Your task to perform on an android device: turn off notifications in google photos Image 0: 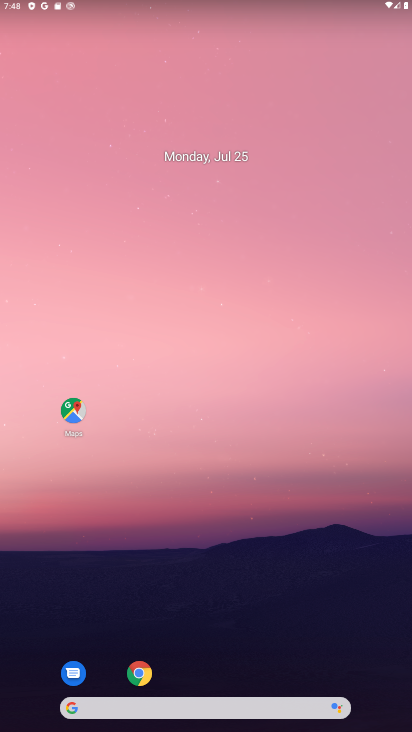
Step 0: drag from (239, 662) to (226, 90)
Your task to perform on an android device: turn off notifications in google photos Image 1: 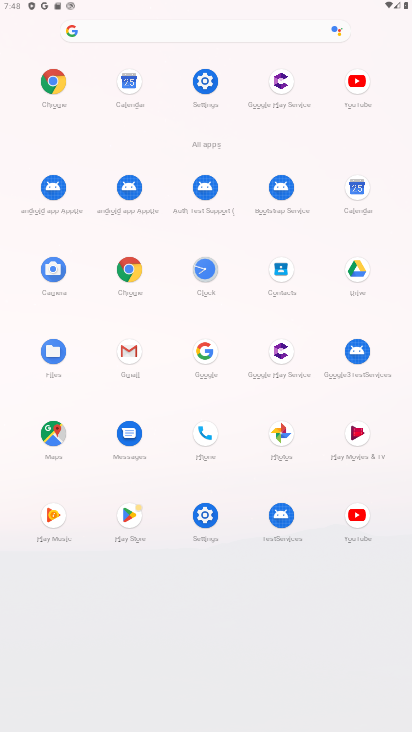
Step 1: click (273, 446)
Your task to perform on an android device: turn off notifications in google photos Image 2: 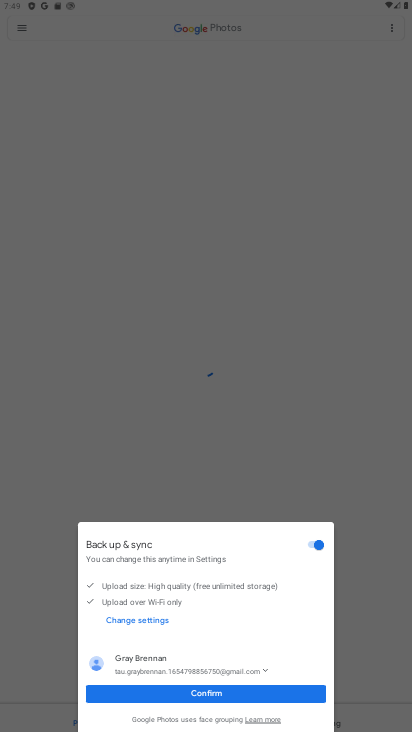
Step 2: click (211, 690)
Your task to perform on an android device: turn off notifications in google photos Image 3: 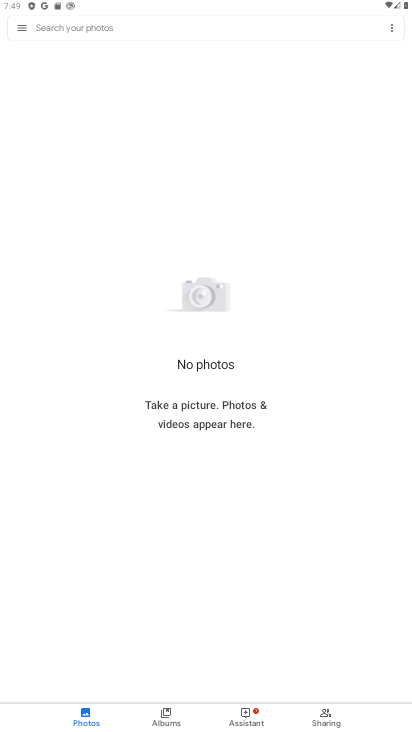
Step 3: click (15, 24)
Your task to perform on an android device: turn off notifications in google photos Image 4: 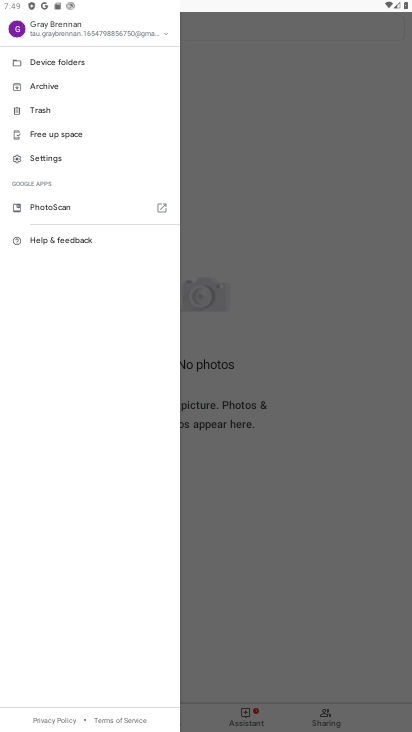
Step 4: task complete